Your task to perform on an android device: turn smart compose on in the gmail app Image 0: 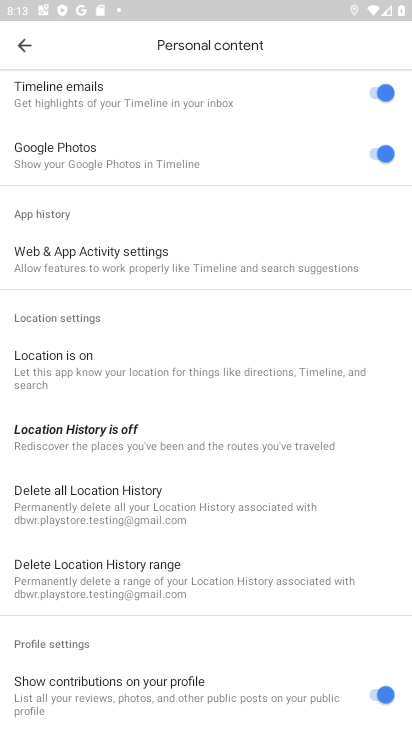
Step 0: press home button
Your task to perform on an android device: turn smart compose on in the gmail app Image 1: 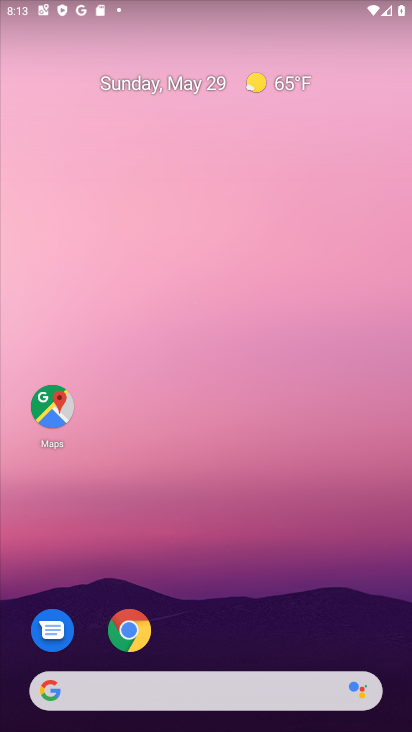
Step 1: drag from (195, 726) to (201, 234)
Your task to perform on an android device: turn smart compose on in the gmail app Image 2: 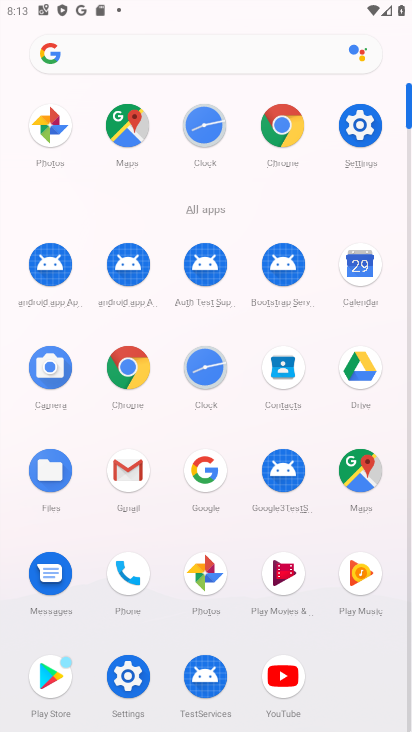
Step 2: click (127, 467)
Your task to perform on an android device: turn smart compose on in the gmail app Image 3: 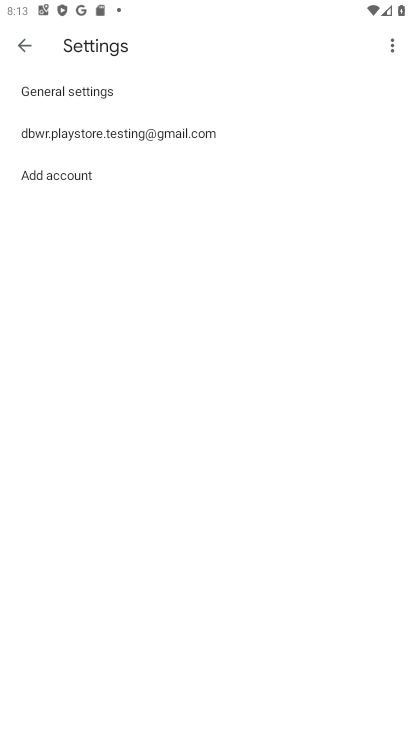
Step 3: click (112, 131)
Your task to perform on an android device: turn smart compose on in the gmail app Image 4: 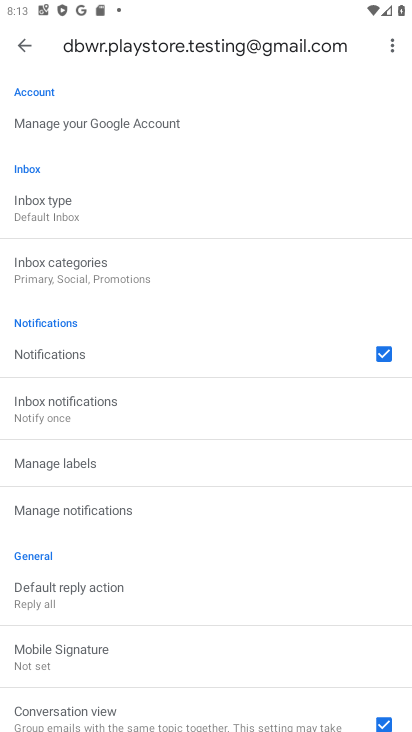
Step 4: task complete